Your task to perform on an android device: change notifications settings Image 0: 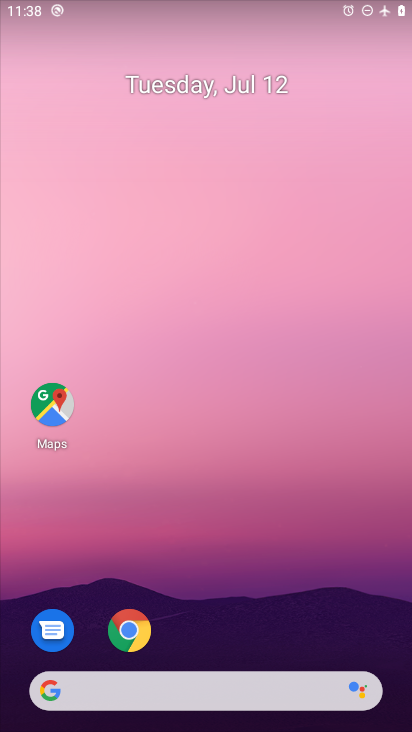
Step 0: press home button
Your task to perform on an android device: change notifications settings Image 1: 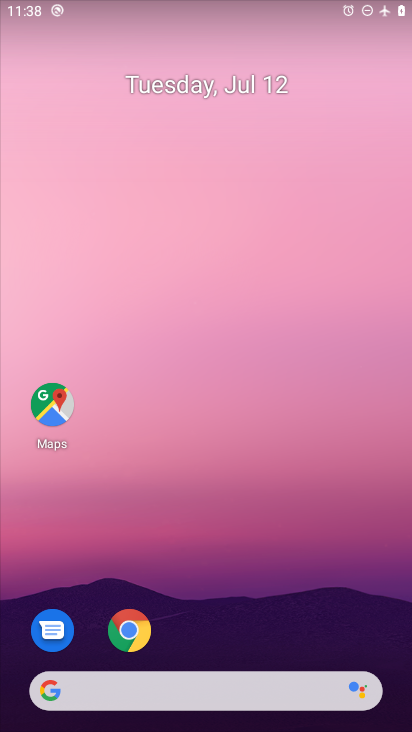
Step 1: drag from (329, 576) to (271, 75)
Your task to perform on an android device: change notifications settings Image 2: 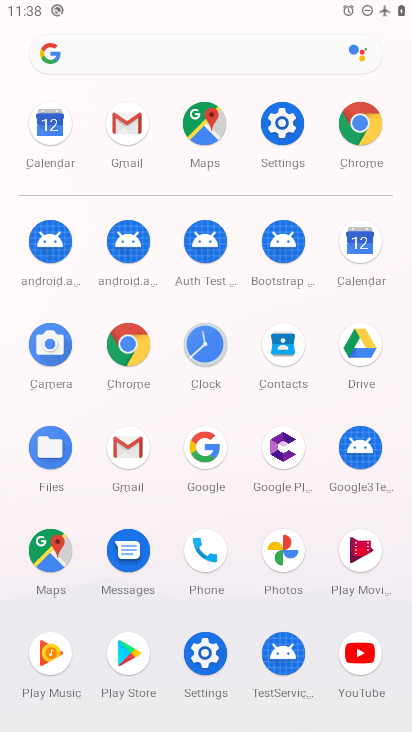
Step 2: click (284, 126)
Your task to perform on an android device: change notifications settings Image 3: 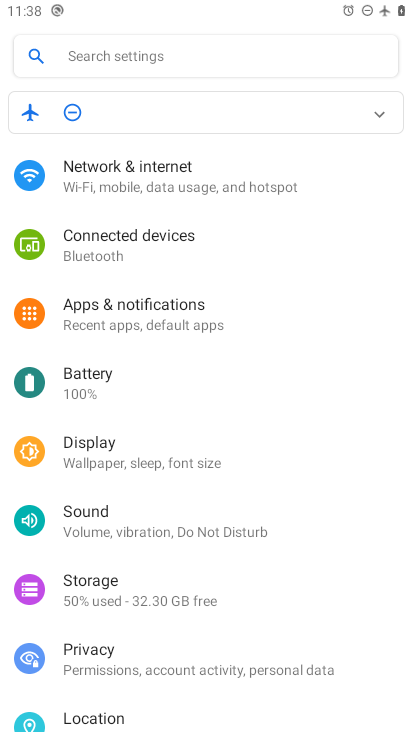
Step 3: click (143, 308)
Your task to perform on an android device: change notifications settings Image 4: 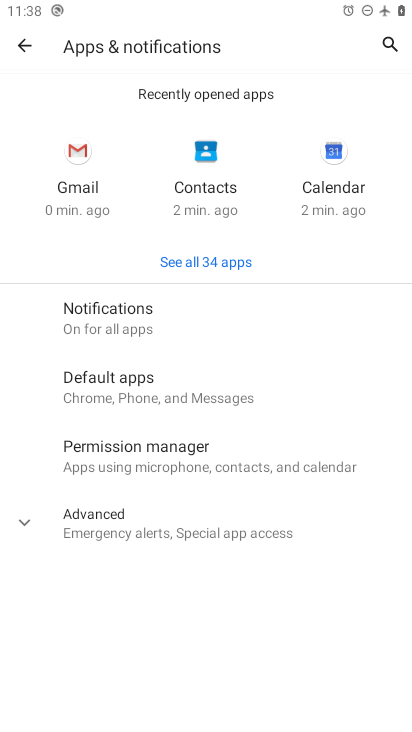
Step 4: click (104, 306)
Your task to perform on an android device: change notifications settings Image 5: 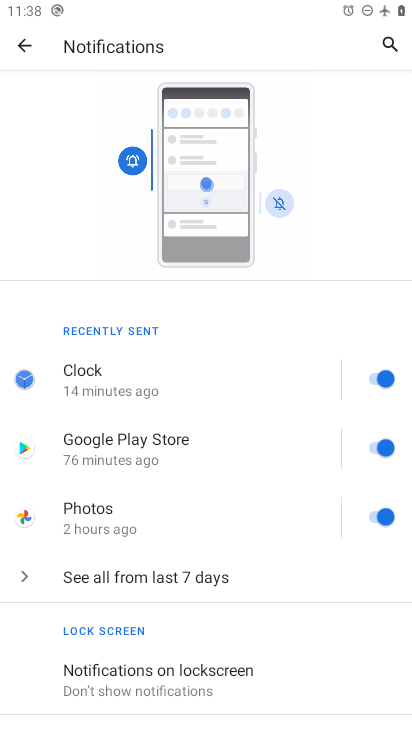
Step 5: click (272, 185)
Your task to perform on an android device: change notifications settings Image 6: 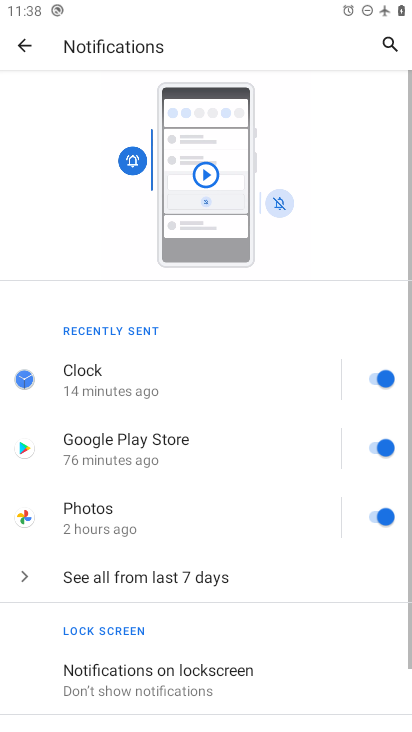
Step 6: click (279, 194)
Your task to perform on an android device: change notifications settings Image 7: 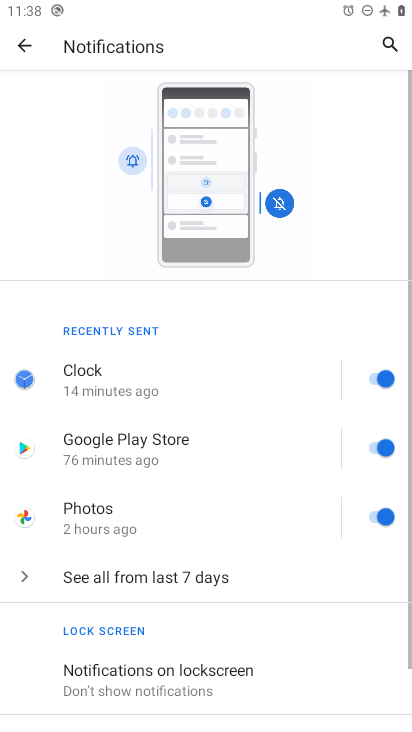
Step 7: click (283, 200)
Your task to perform on an android device: change notifications settings Image 8: 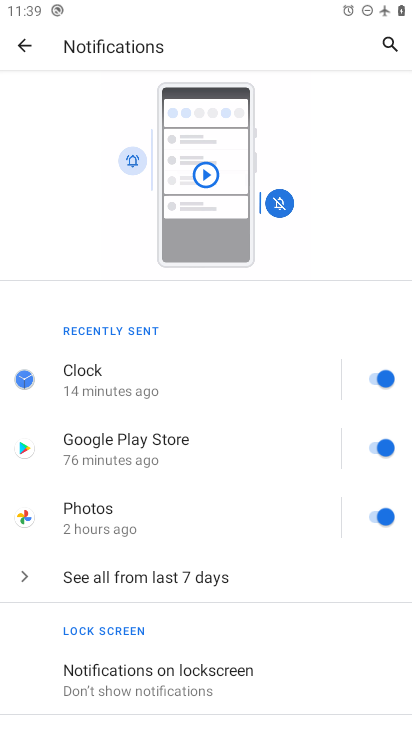
Step 8: task complete